Your task to perform on an android device: empty trash in the gmail app Image 0: 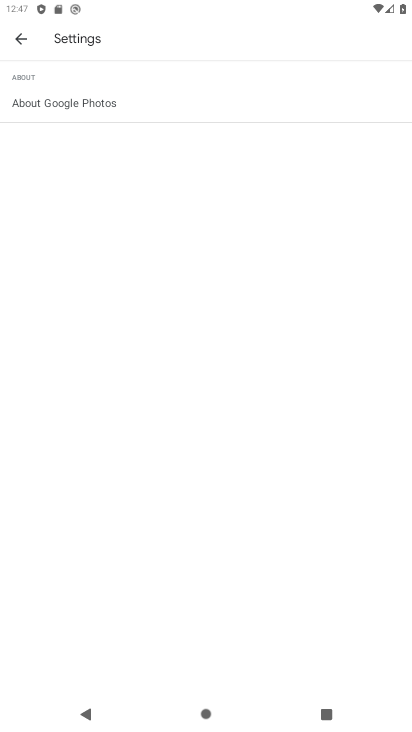
Step 0: press home button
Your task to perform on an android device: empty trash in the gmail app Image 1: 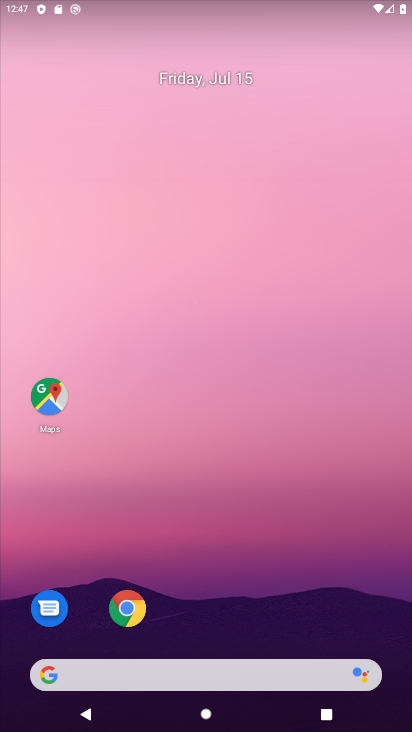
Step 1: drag from (224, 600) to (255, 6)
Your task to perform on an android device: empty trash in the gmail app Image 2: 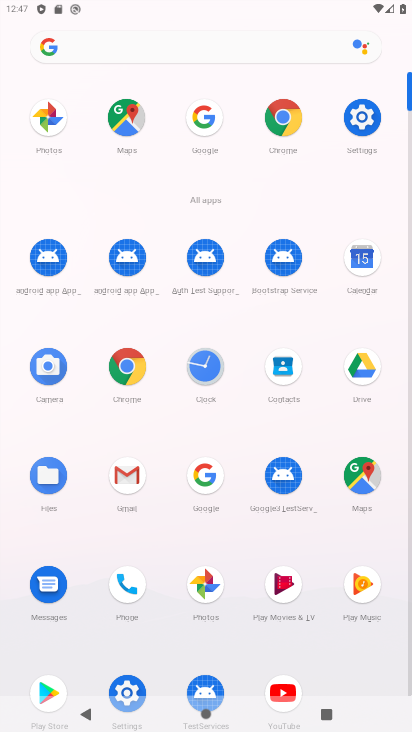
Step 2: click (123, 469)
Your task to perform on an android device: empty trash in the gmail app Image 3: 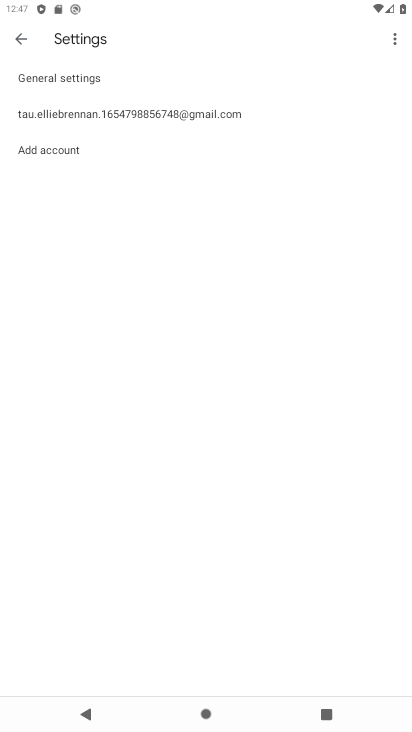
Step 3: click (14, 41)
Your task to perform on an android device: empty trash in the gmail app Image 4: 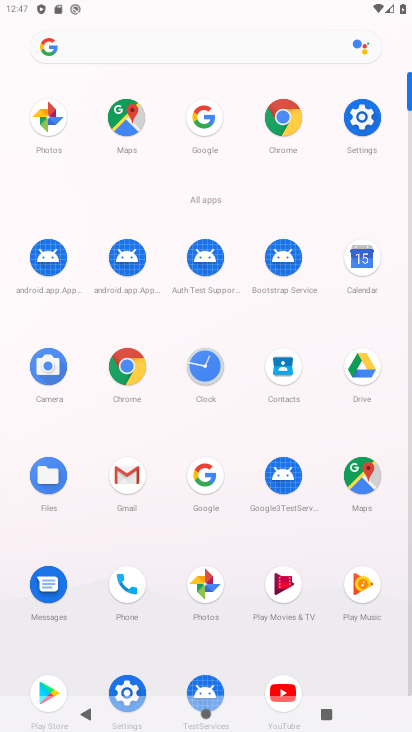
Step 4: click (130, 472)
Your task to perform on an android device: empty trash in the gmail app Image 5: 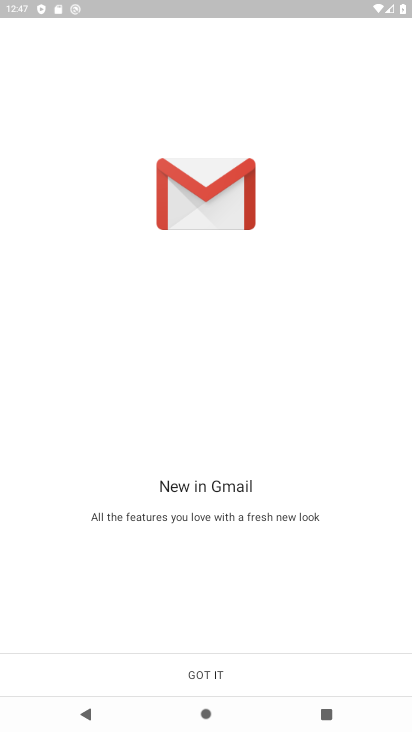
Step 5: click (231, 665)
Your task to perform on an android device: empty trash in the gmail app Image 6: 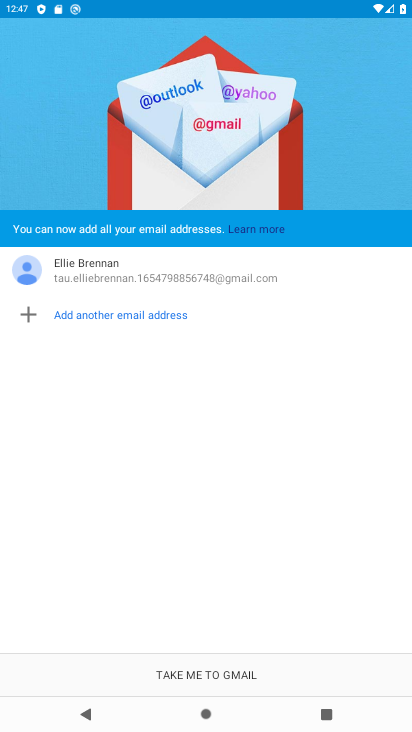
Step 6: click (234, 672)
Your task to perform on an android device: empty trash in the gmail app Image 7: 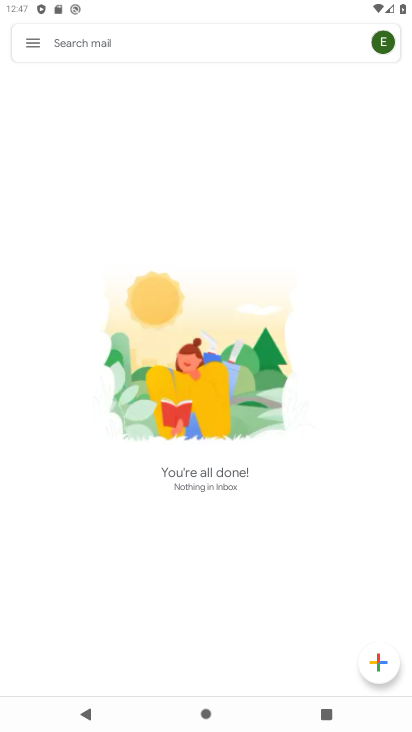
Step 7: click (39, 34)
Your task to perform on an android device: empty trash in the gmail app Image 8: 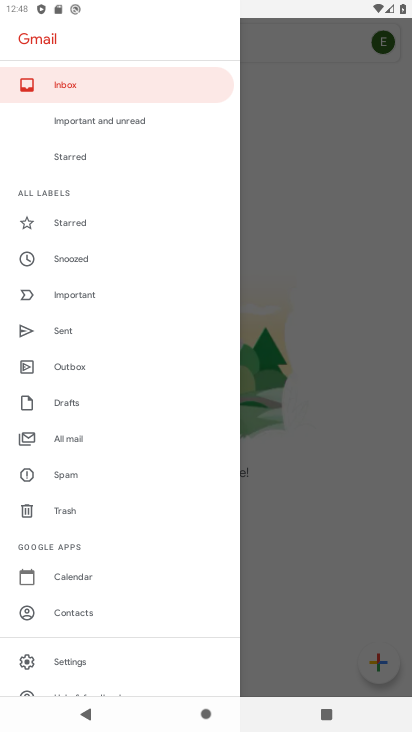
Step 8: click (80, 512)
Your task to perform on an android device: empty trash in the gmail app Image 9: 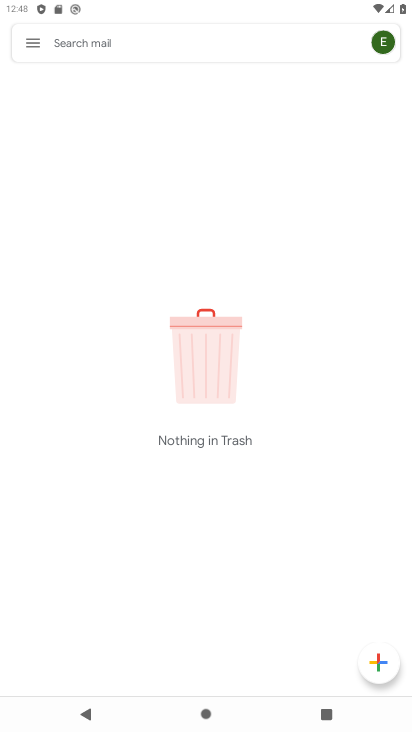
Step 9: task complete